Your task to perform on an android device: open app "Roku - Official Remote Control" (install if not already installed) Image 0: 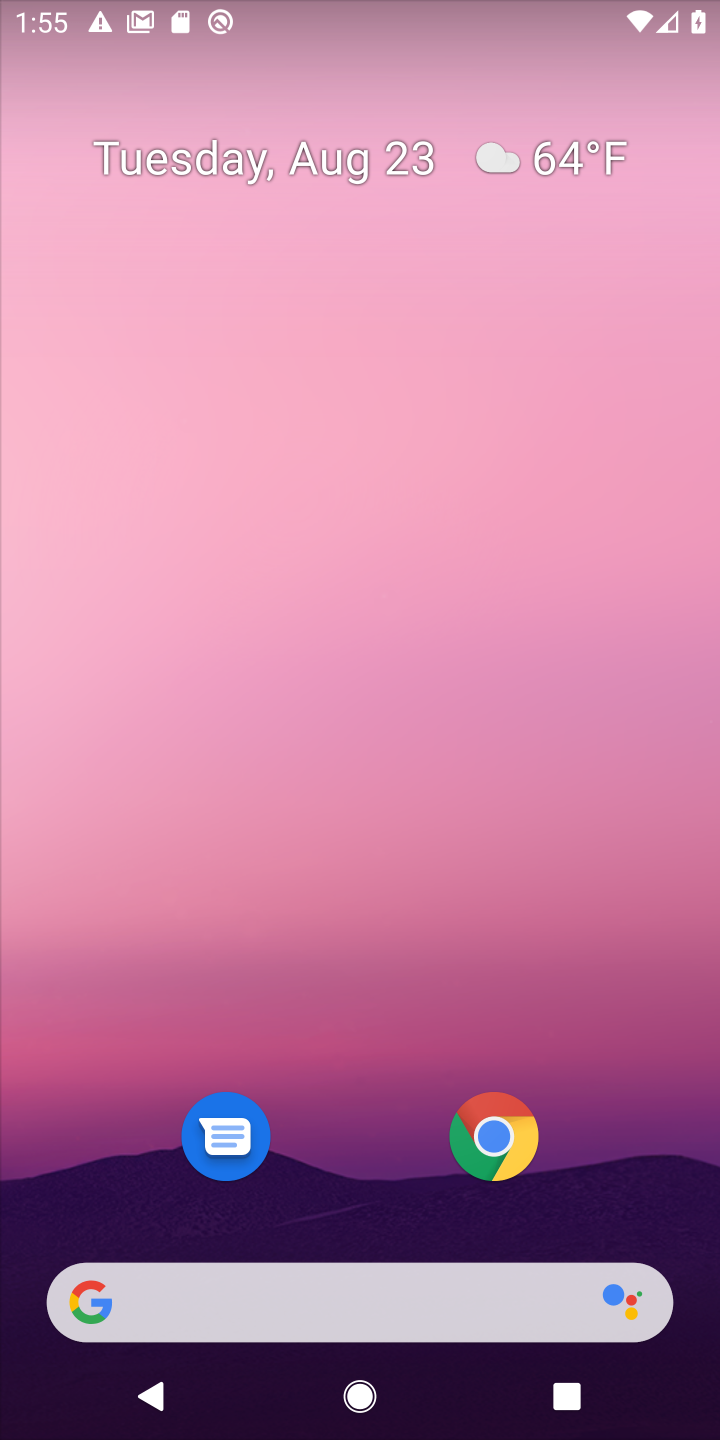
Step 0: drag from (402, 572) to (400, 278)
Your task to perform on an android device: open app "Roku - Official Remote Control" (install if not already installed) Image 1: 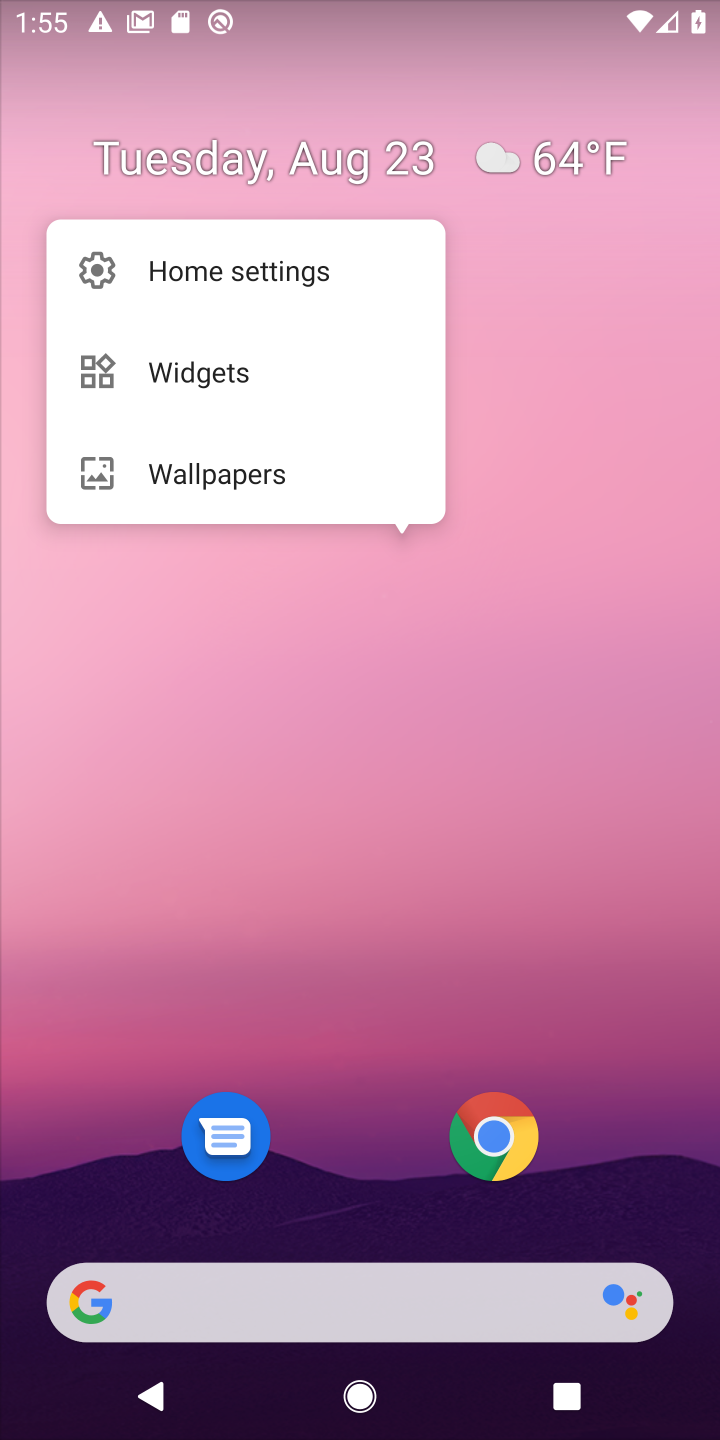
Step 1: click (369, 954)
Your task to perform on an android device: open app "Roku - Official Remote Control" (install if not already installed) Image 2: 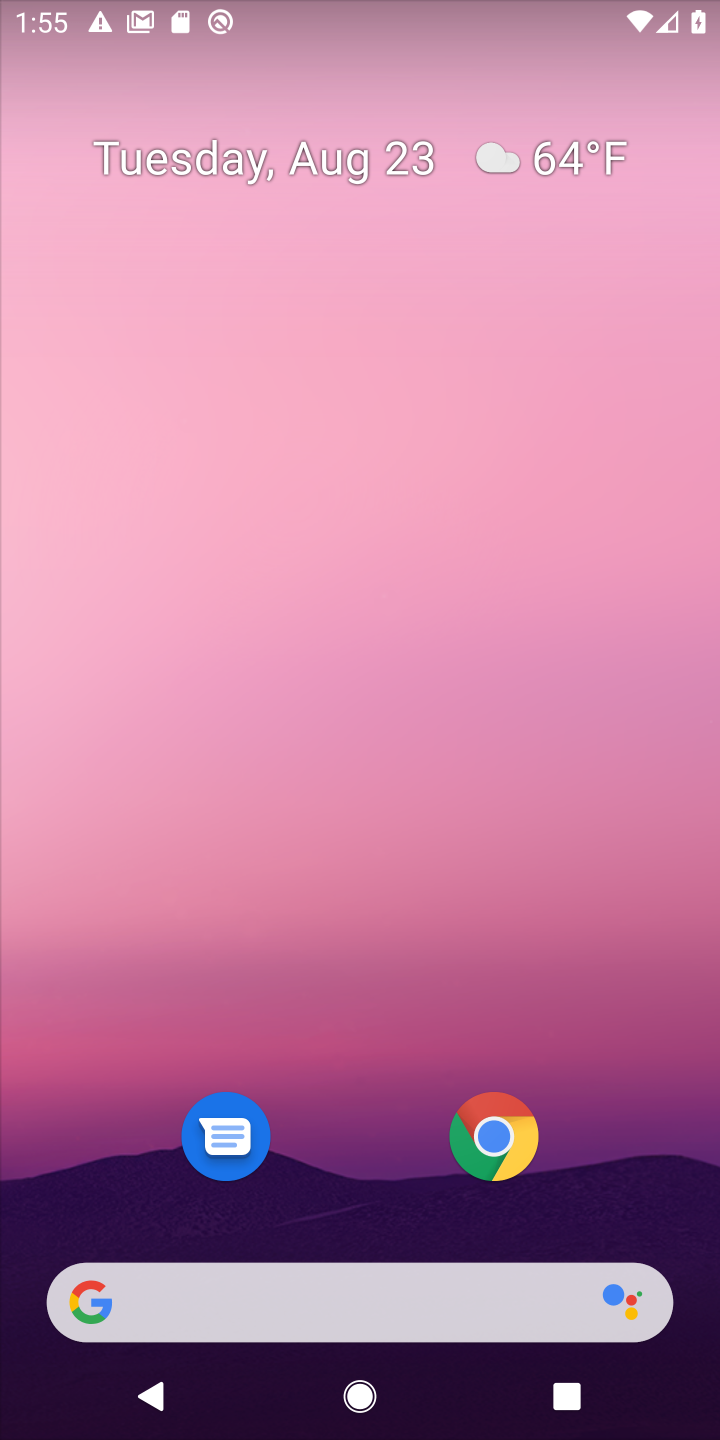
Step 2: drag from (360, 941) to (348, 166)
Your task to perform on an android device: open app "Roku - Official Remote Control" (install if not already installed) Image 3: 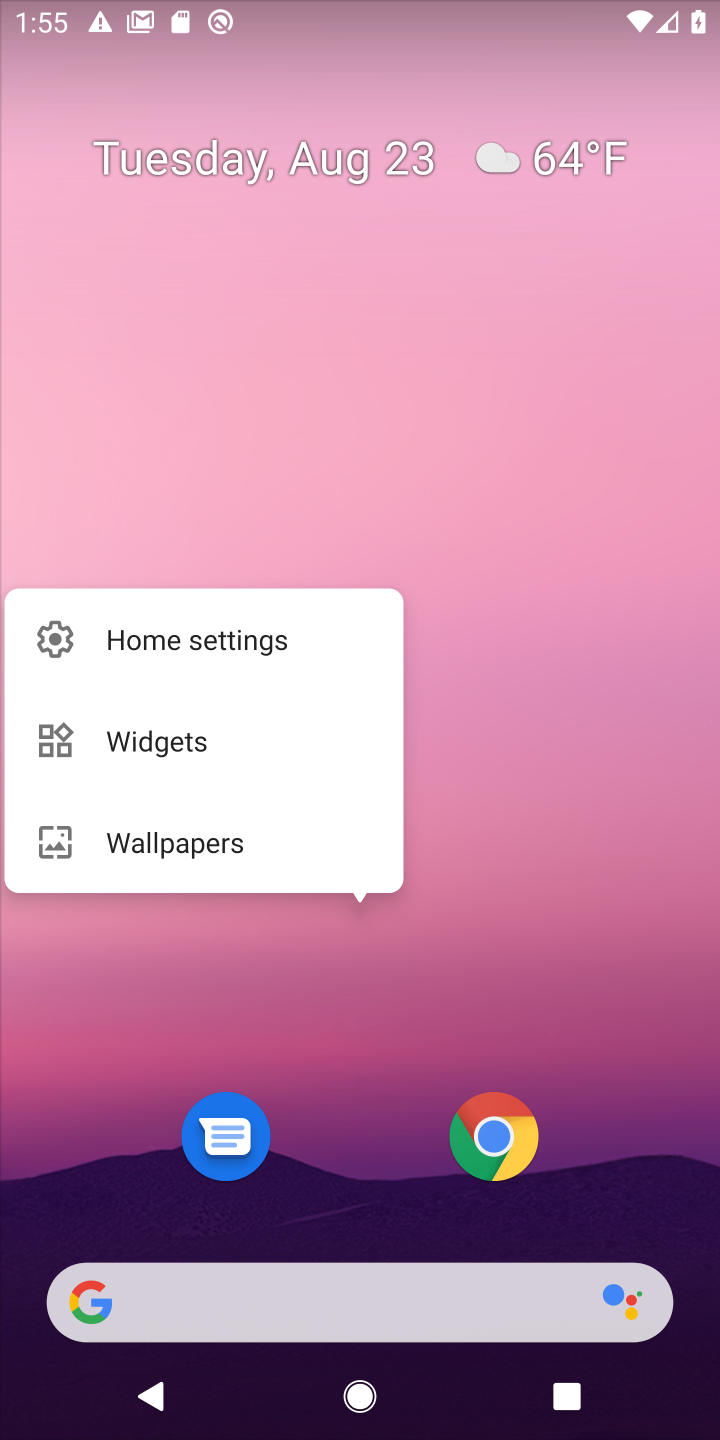
Step 3: click (446, 872)
Your task to perform on an android device: open app "Roku - Official Remote Control" (install if not already installed) Image 4: 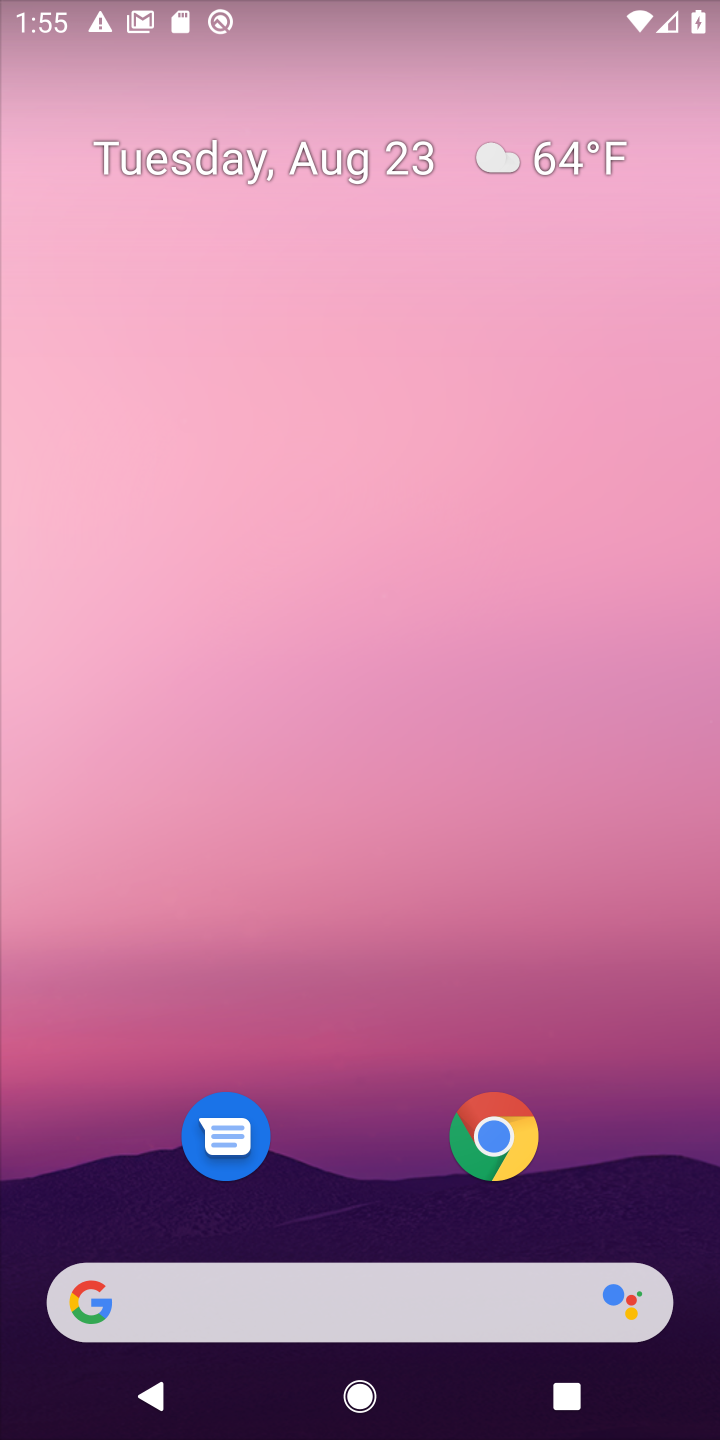
Step 4: drag from (357, 1010) to (357, 198)
Your task to perform on an android device: open app "Roku - Official Remote Control" (install if not already installed) Image 5: 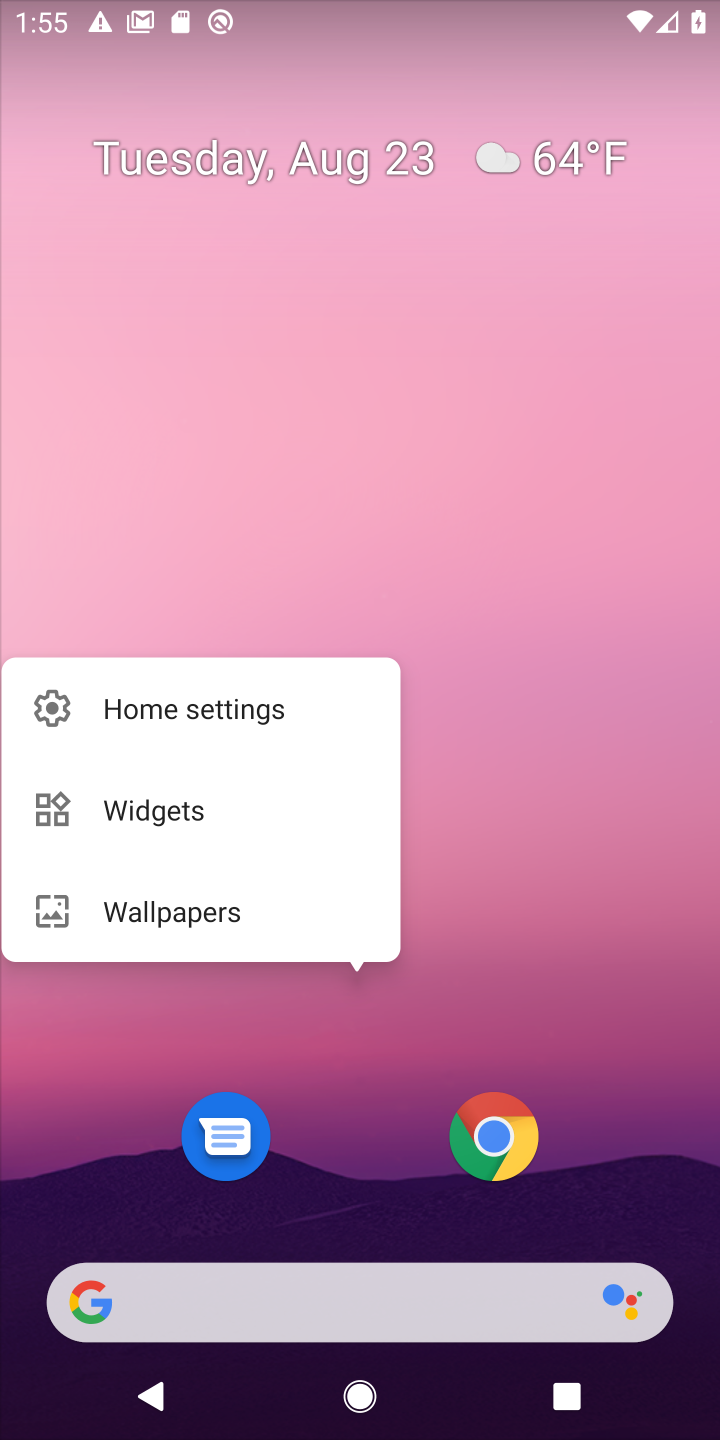
Step 5: click (458, 527)
Your task to perform on an android device: open app "Roku - Official Remote Control" (install if not already installed) Image 6: 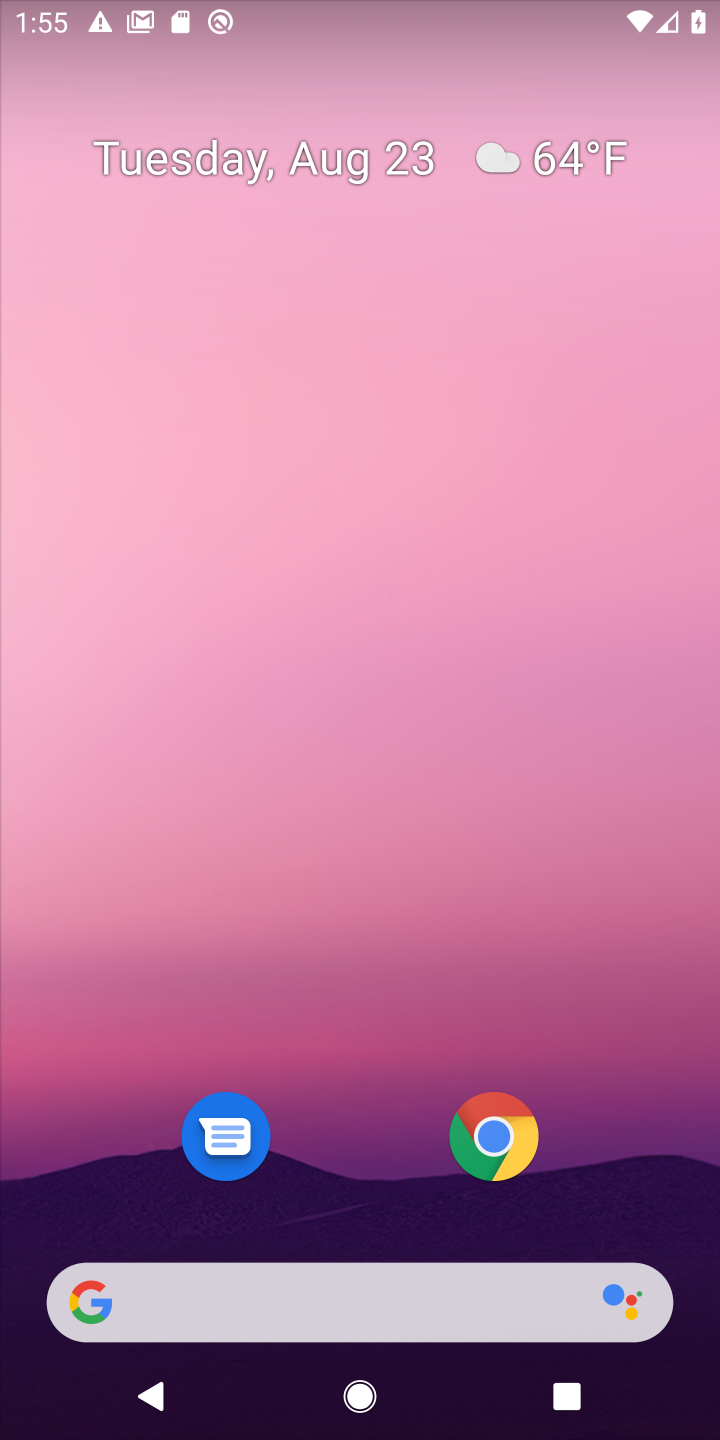
Step 6: drag from (397, 524) to (345, 105)
Your task to perform on an android device: open app "Roku - Official Remote Control" (install if not already installed) Image 7: 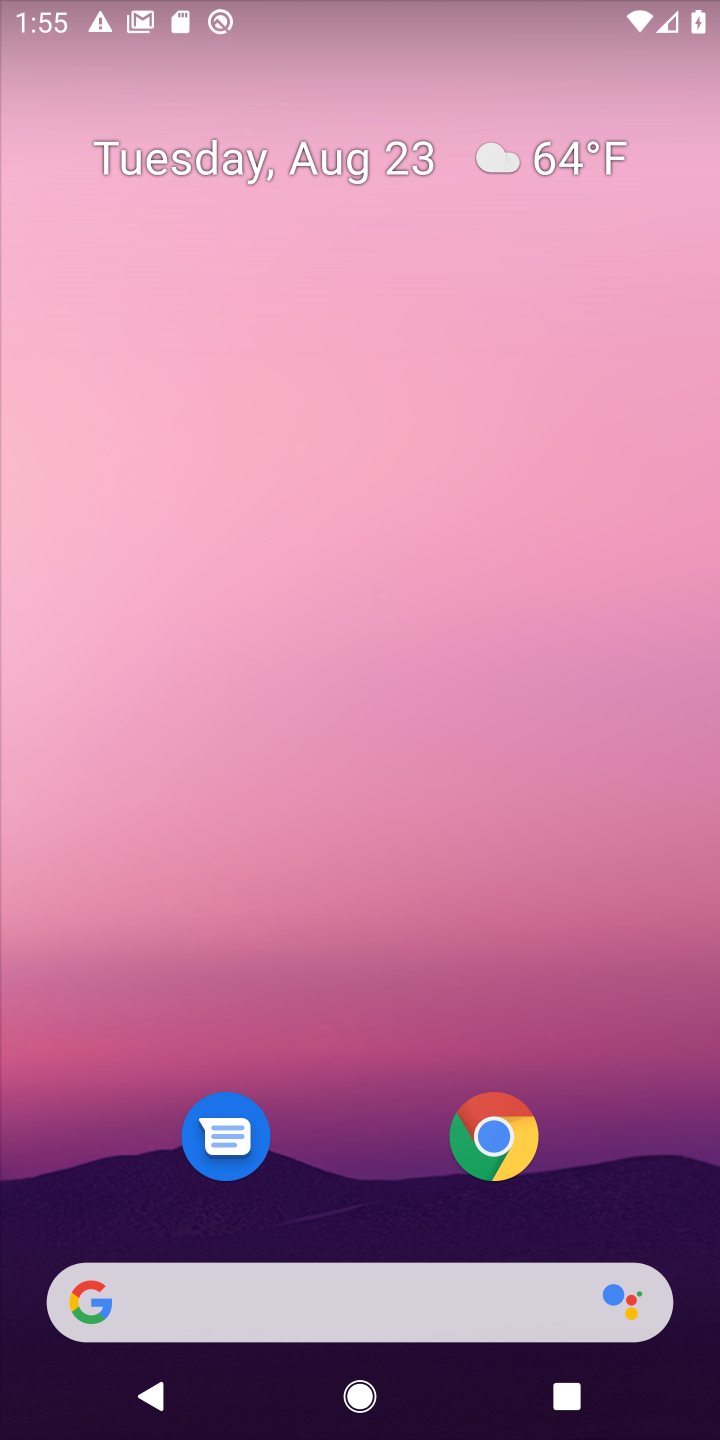
Step 7: click (375, 239)
Your task to perform on an android device: open app "Roku - Official Remote Control" (install if not already installed) Image 8: 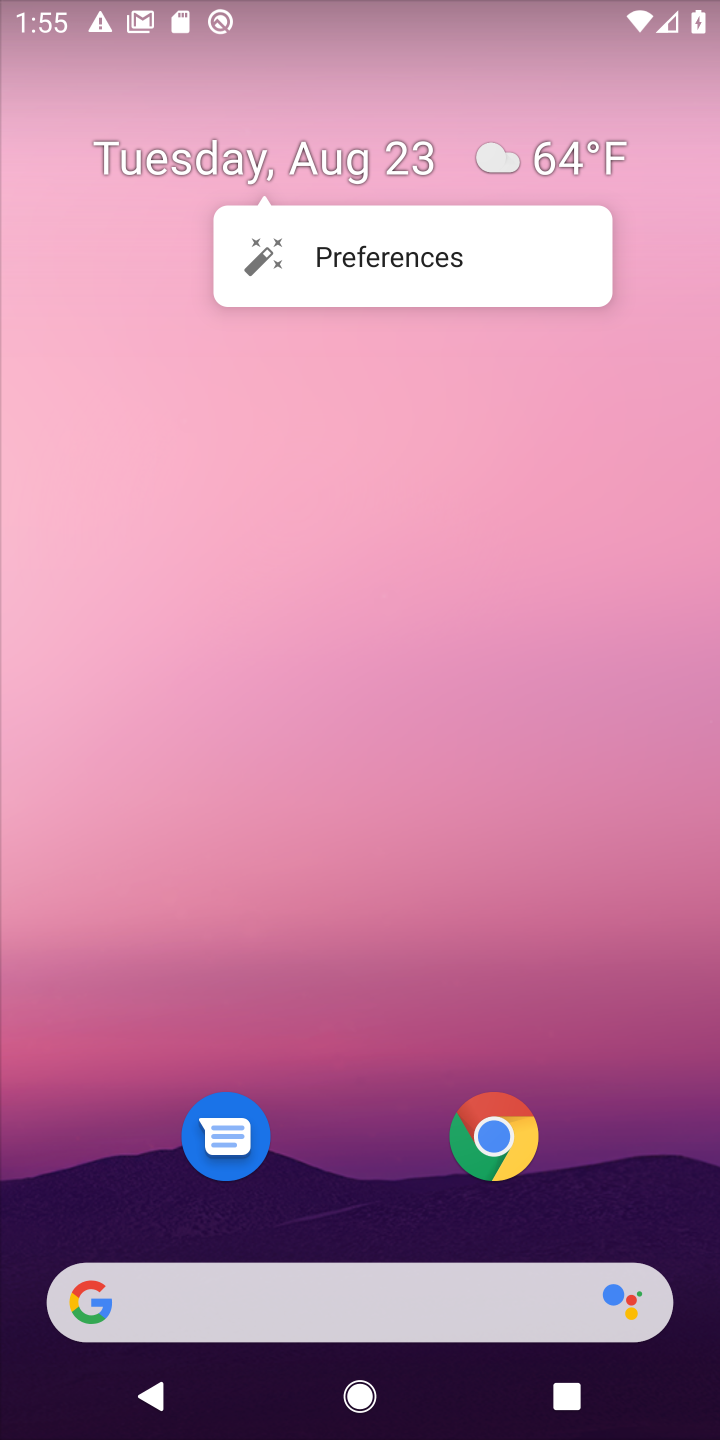
Step 8: click (386, 1039)
Your task to perform on an android device: open app "Roku - Official Remote Control" (install if not already installed) Image 9: 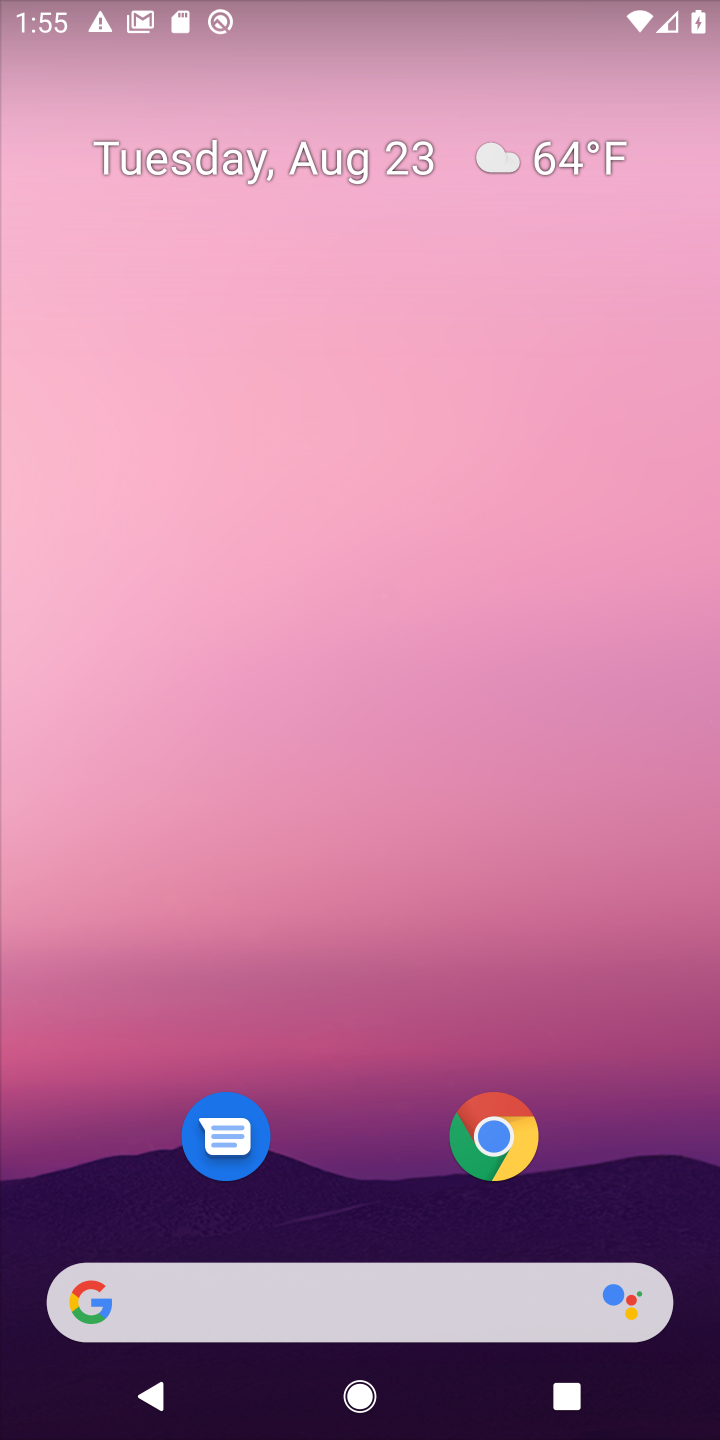
Step 9: drag from (353, 1017) to (361, 361)
Your task to perform on an android device: open app "Roku - Official Remote Control" (install if not already installed) Image 10: 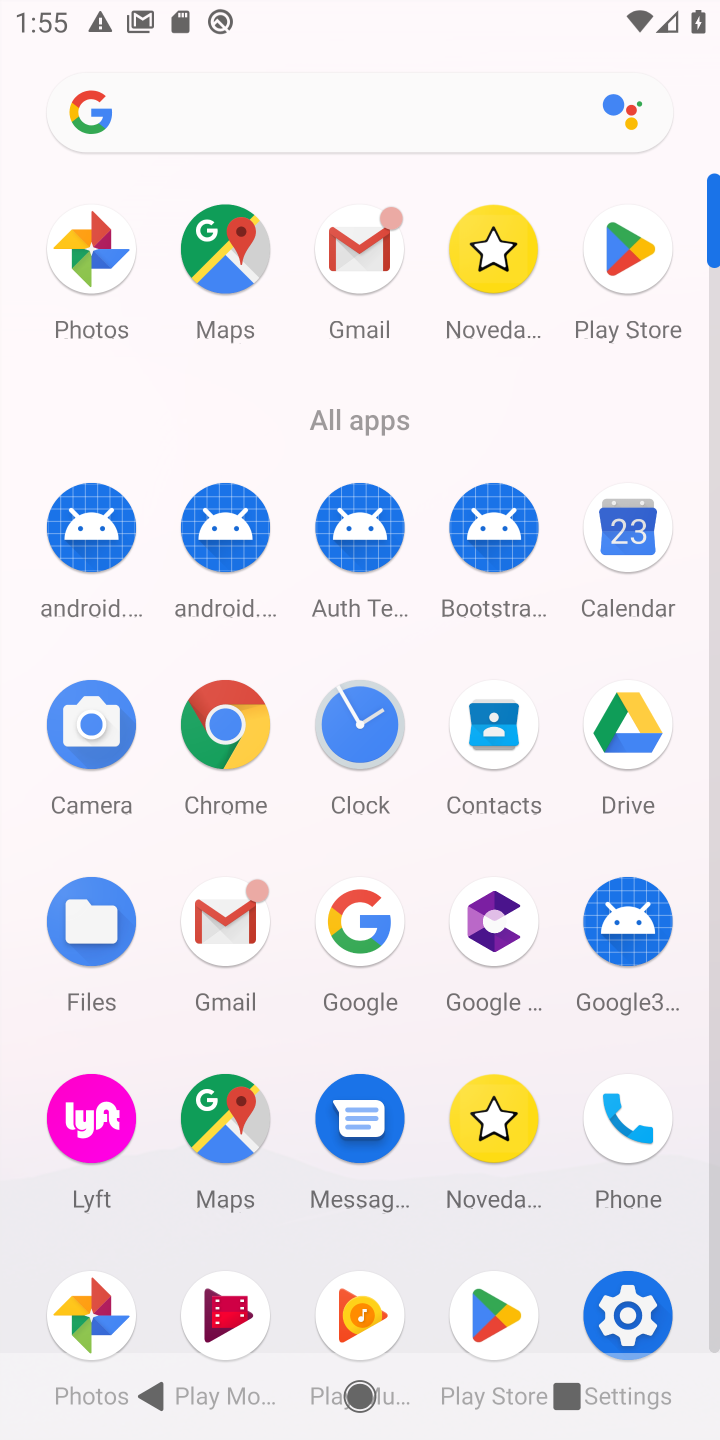
Step 10: click (617, 283)
Your task to perform on an android device: open app "Roku - Official Remote Control" (install if not already installed) Image 11: 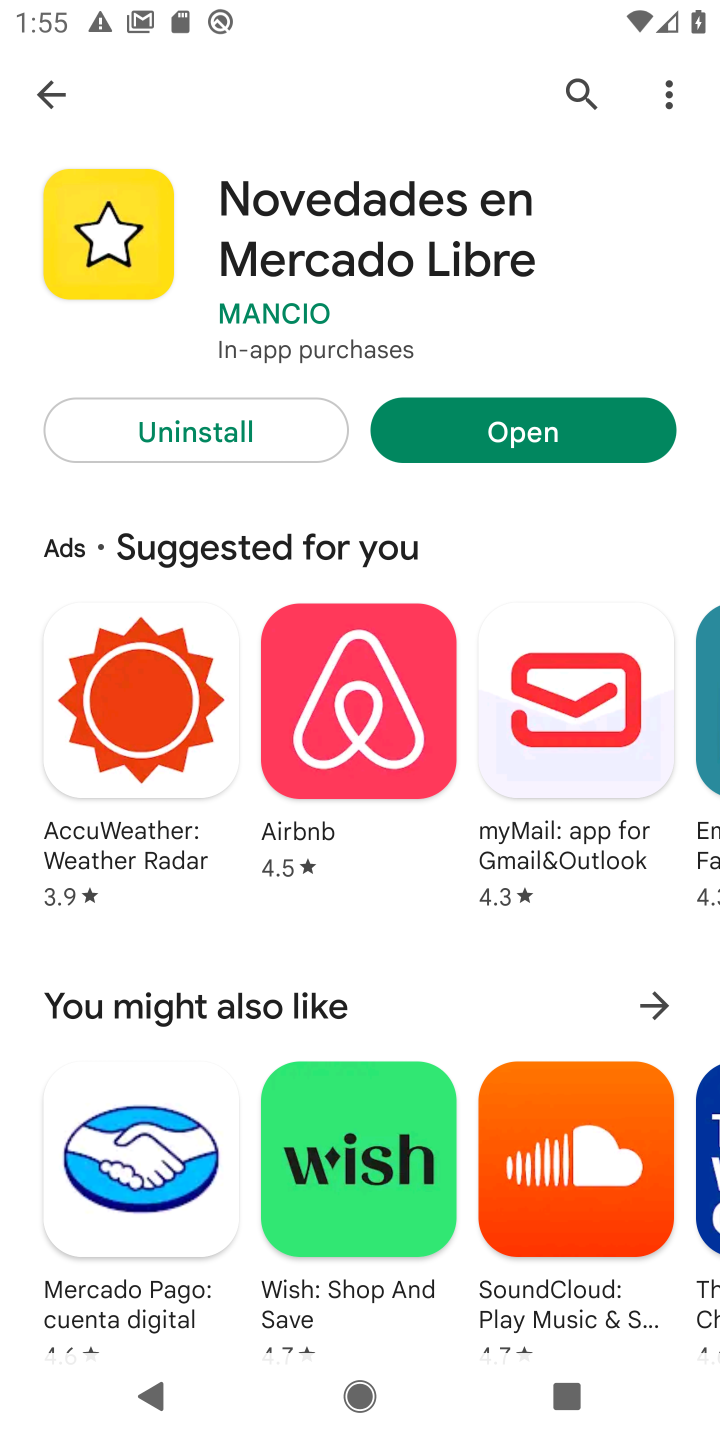
Step 11: click (570, 64)
Your task to perform on an android device: open app "Roku - Official Remote Control" (install if not already installed) Image 12: 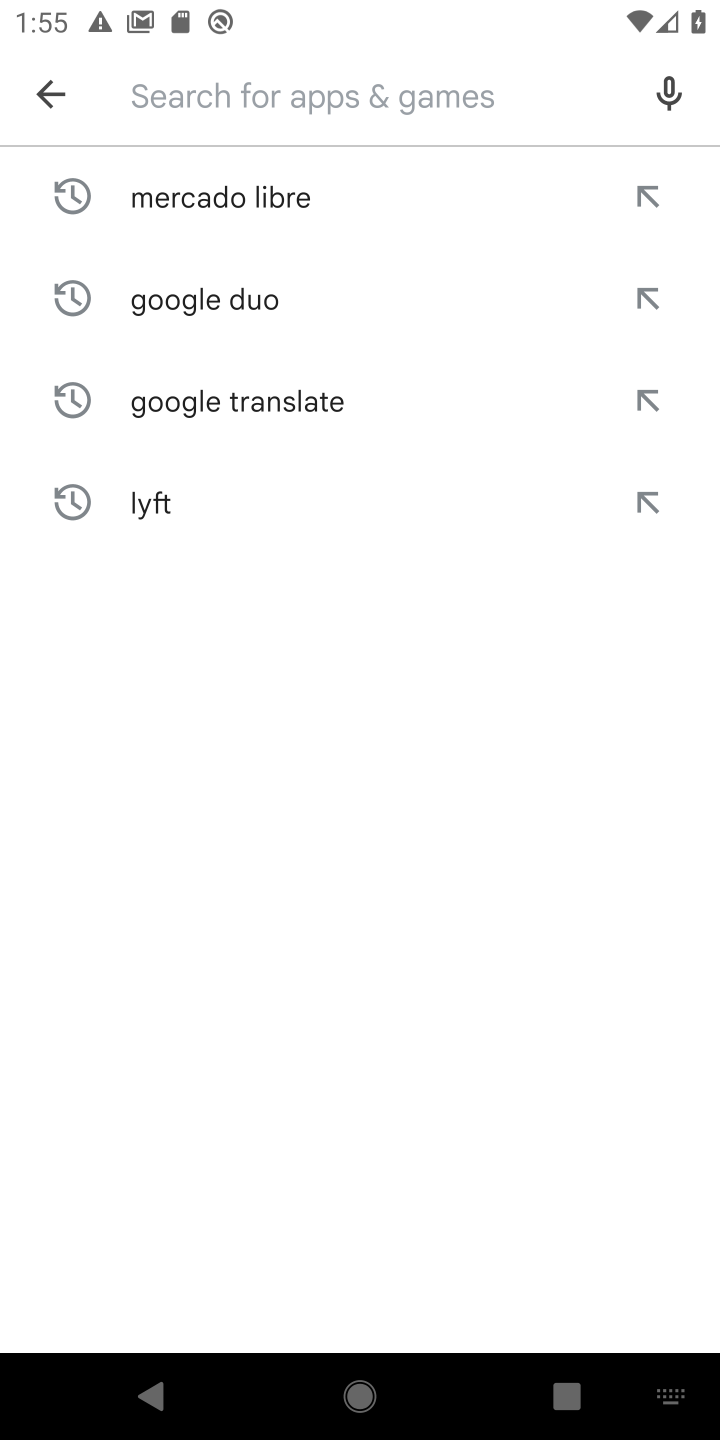
Step 12: type "Roku - Official Remote Control"
Your task to perform on an android device: open app "Roku - Official Remote Control" (install if not already installed) Image 13: 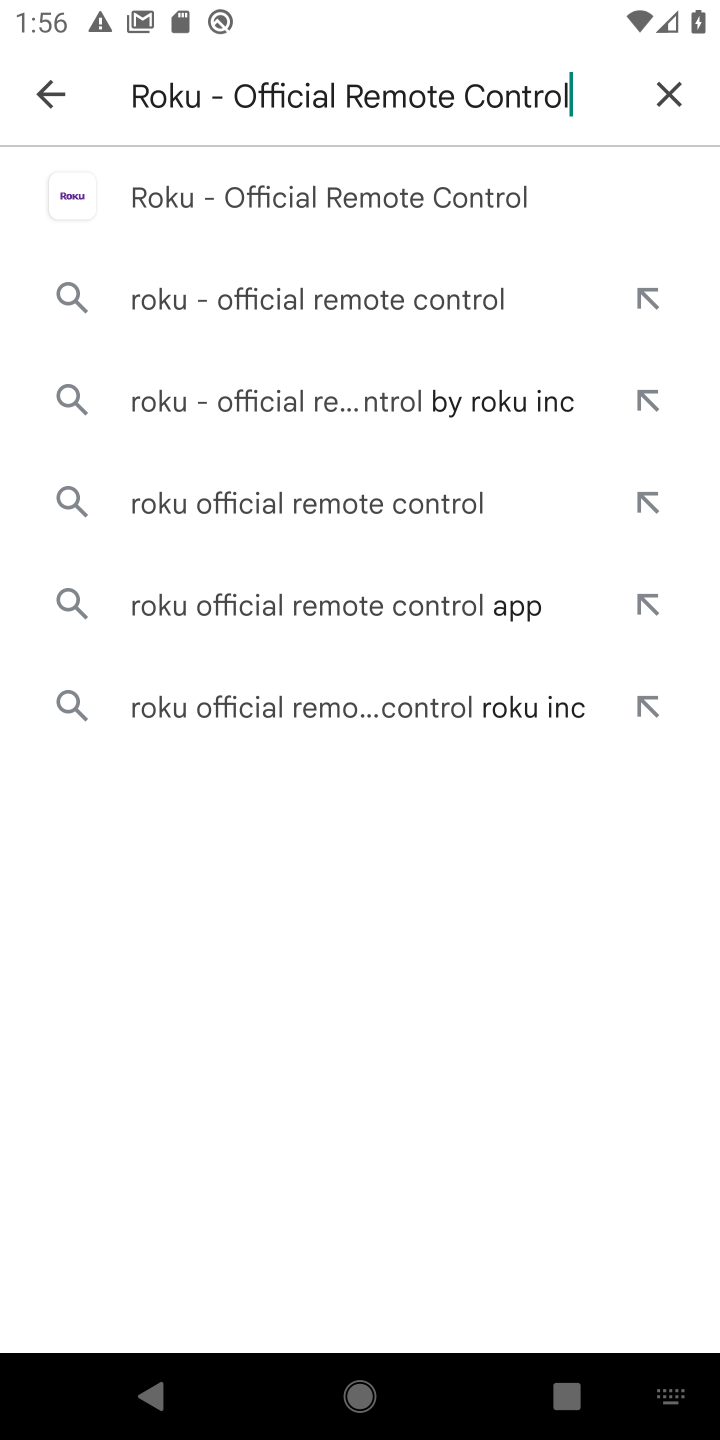
Step 13: click (316, 200)
Your task to perform on an android device: open app "Roku - Official Remote Control" (install if not already installed) Image 14: 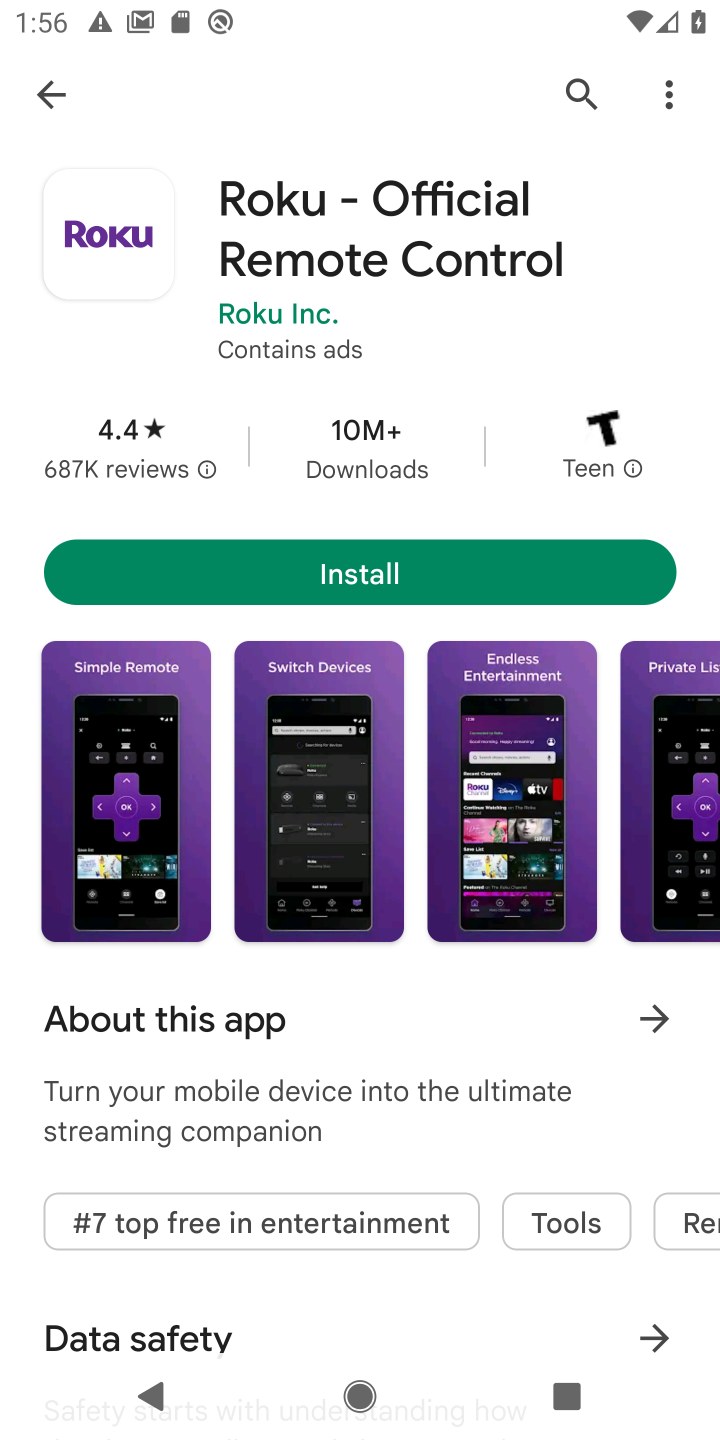
Step 14: click (417, 573)
Your task to perform on an android device: open app "Roku - Official Remote Control" (install if not already installed) Image 15: 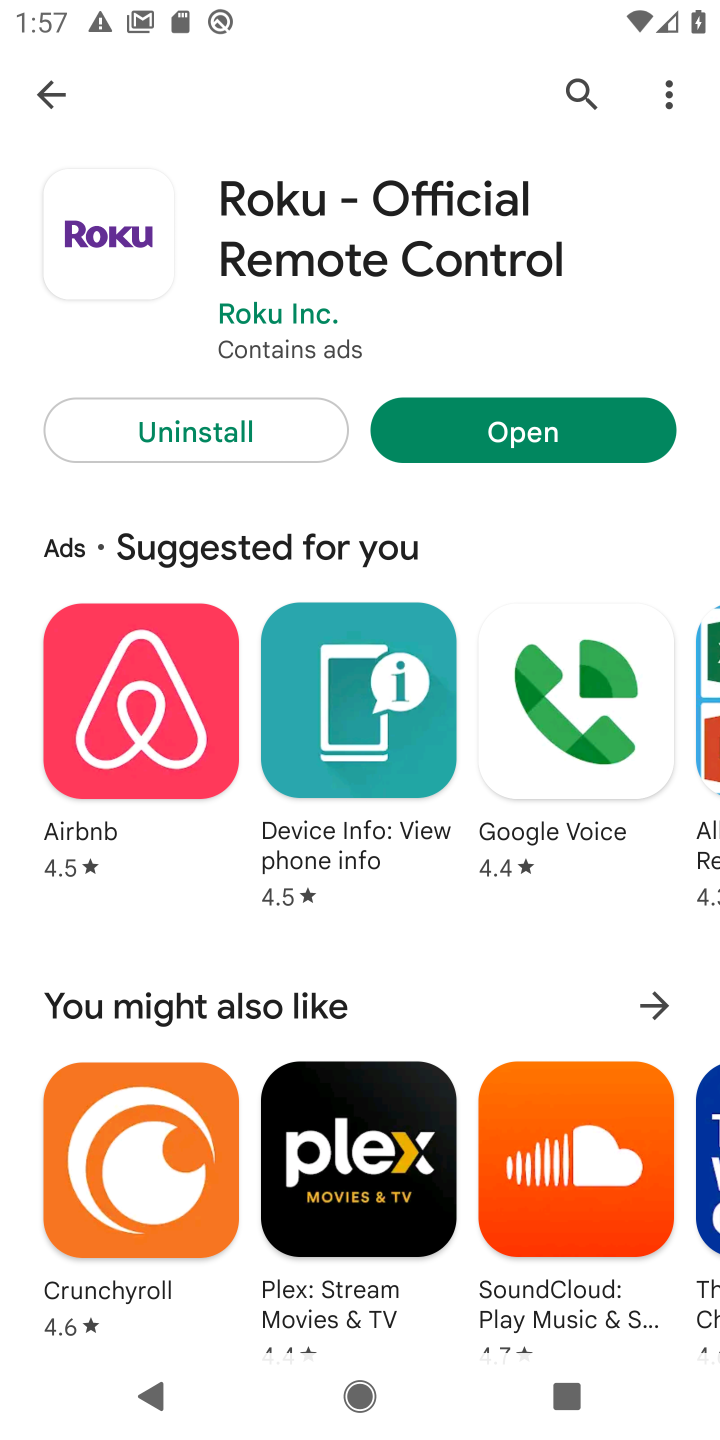
Step 15: click (533, 447)
Your task to perform on an android device: open app "Roku - Official Remote Control" (install if not already installed) Image 16: 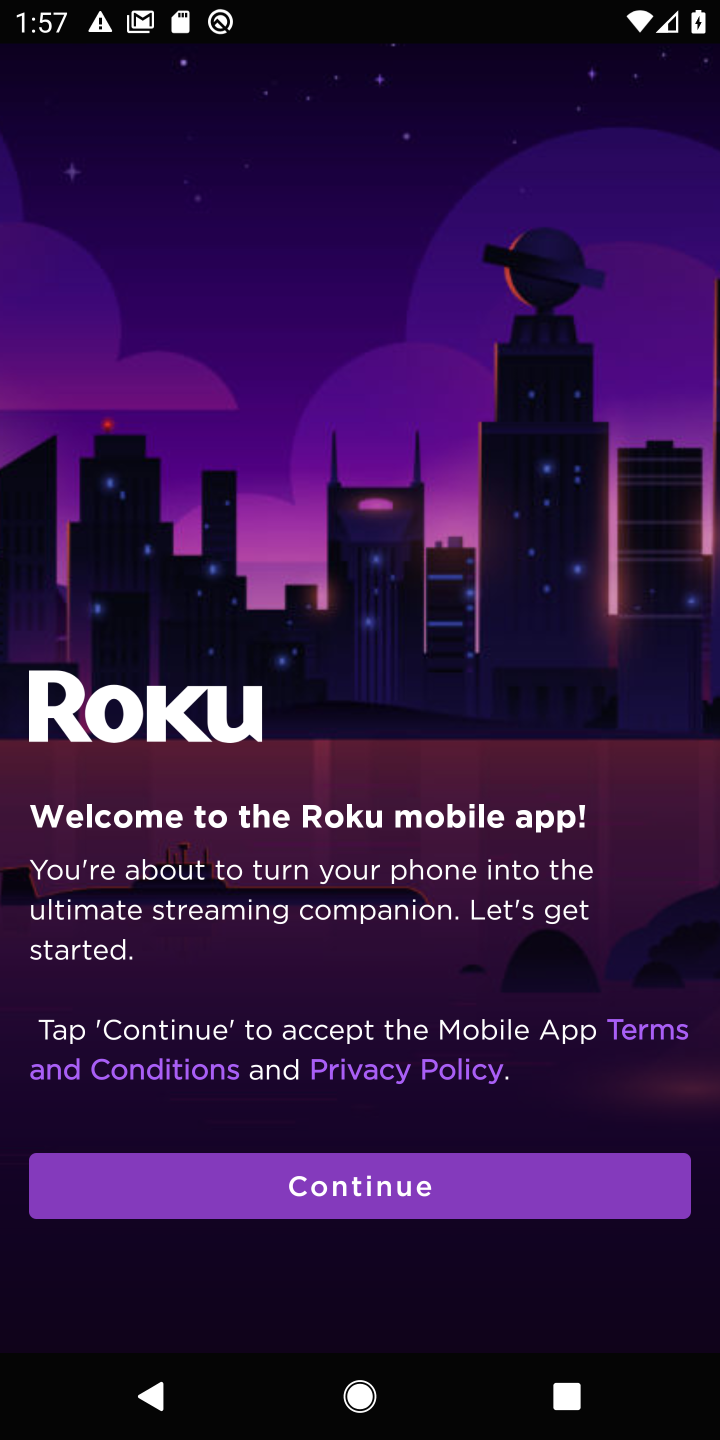
Step 16: task complete